Your task to perform on an android device: What's the weather going to be tomorrow? Image 0: 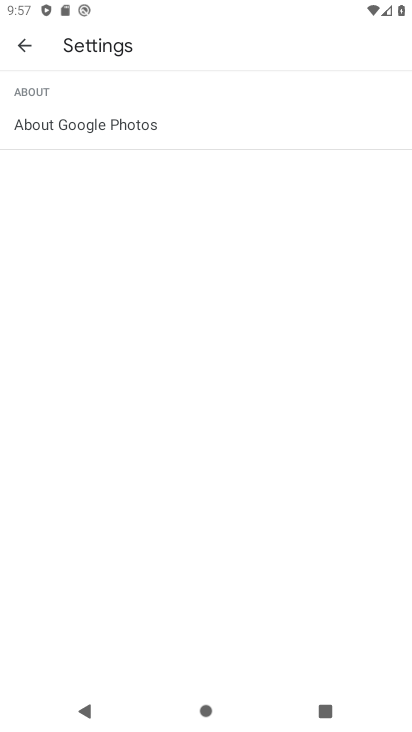
Step 0: press home button
Your task to perform on an android device: What's the weather going to be tomorrow? Image 1: 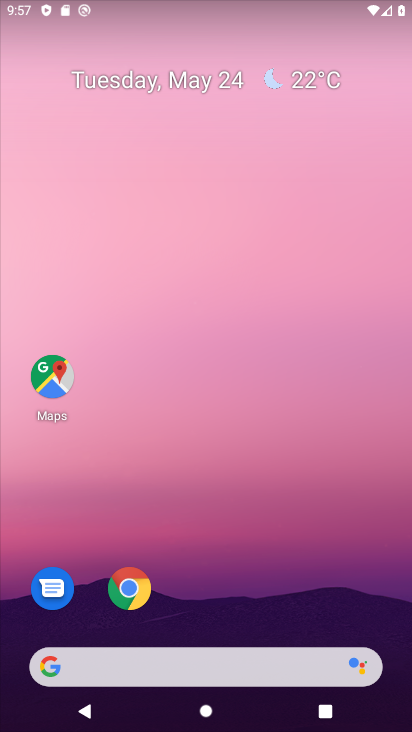
Step 1: click (318, 82)
Your task to perform on an android device: What's the weather going to be tomorrow? Image 2: 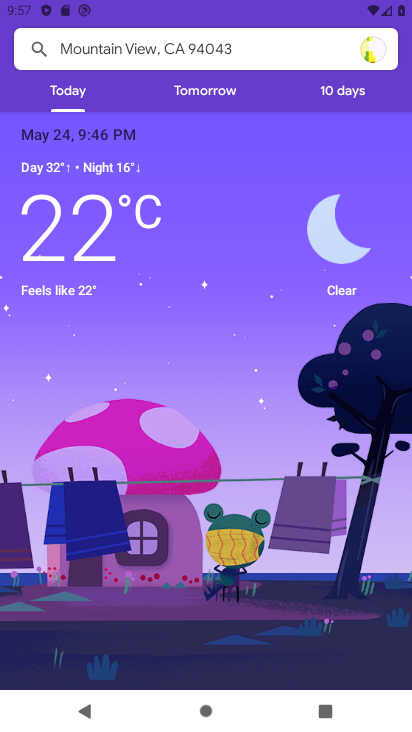
Step 2: task complete